Your task to perform on an android device: remove spam from my inbox in the gmail app Image 0: 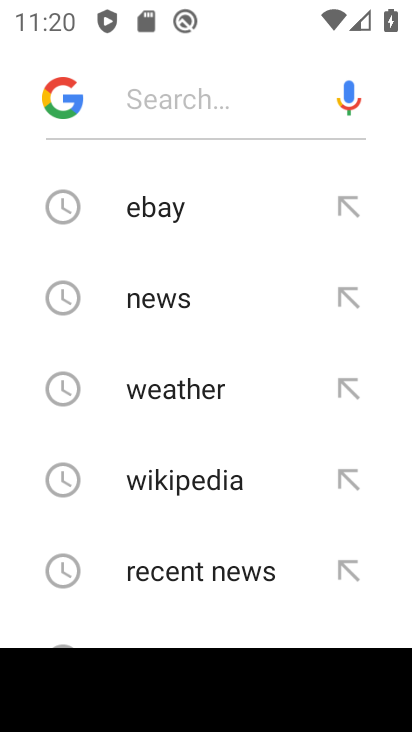
Step 0: press home button
Your task to perform on an android device: remove spam from my inbox in the gmail app Image 1: 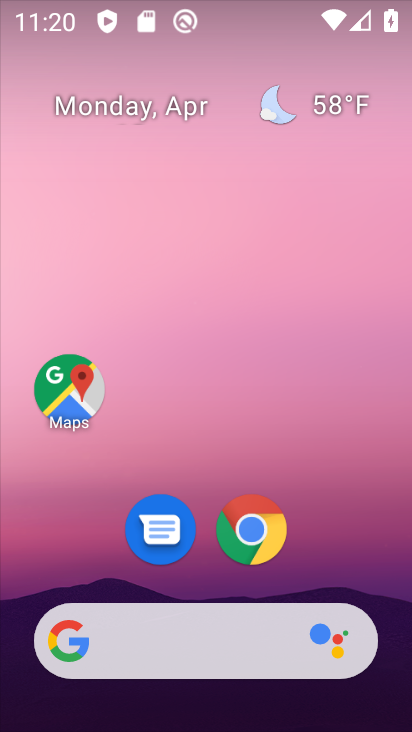
Step 1: drag from (352, 536) to (253, 24)
Your task to perform on an android device: remove spam from my inbox in the gmail app Image 2: 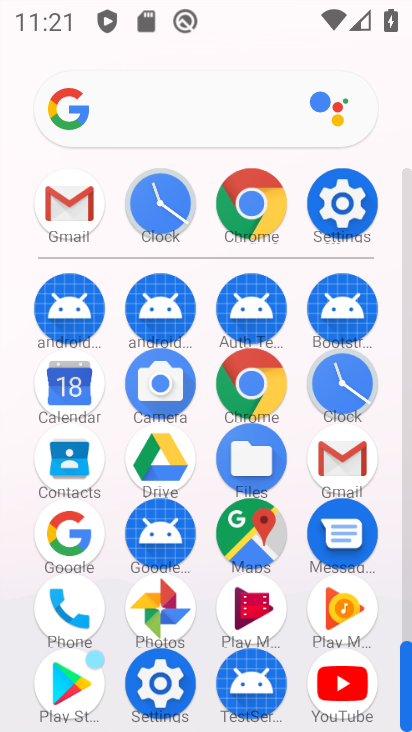
Step 2: click (349, 464)
Your task to perform on an android device: remove spam from my inbox in the gmail app Image 3: 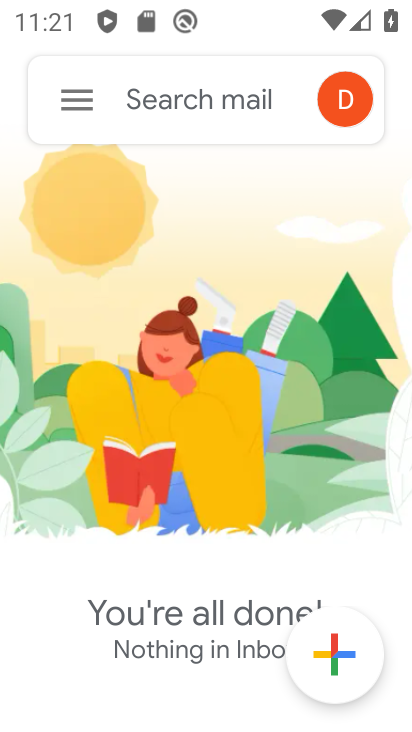
Step 3: task complete